Your task to perform on an android device: Open Google Chrome and open the bookmarks view Image 0: 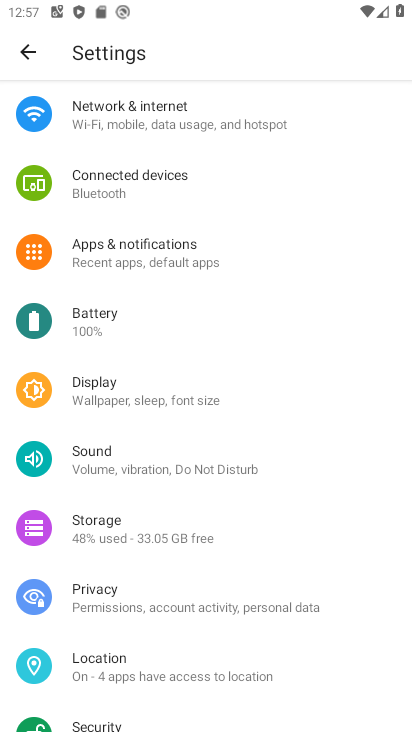
Step 0: press home button
Your task to perform on an android device: Open Google Chrome and open the bookmarks view Image 1: 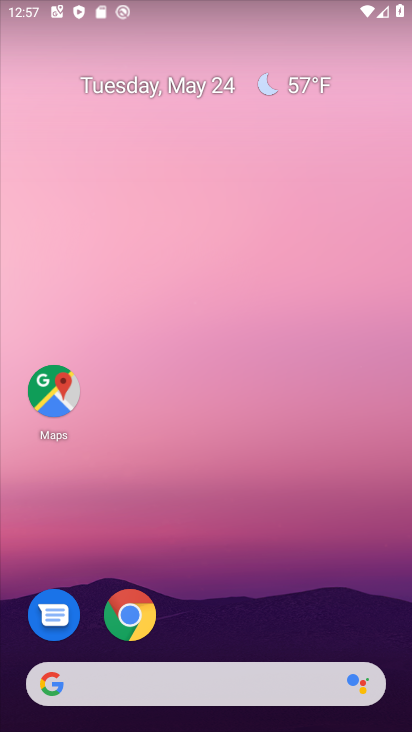
Step 1: click (132, 622)
Your task to perform on an android device: Open Google Chrome and open the bookmarks view Image 2: 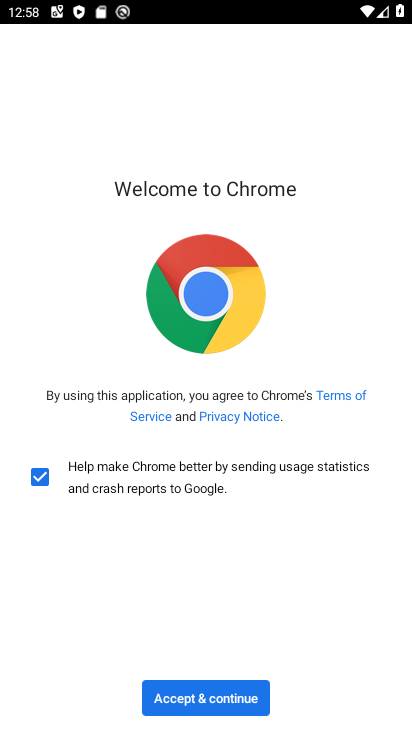
Step 2: click (195, 698)
Your task to perform on an android device: Open Google Chrome and open the bookmarks view Image 3: 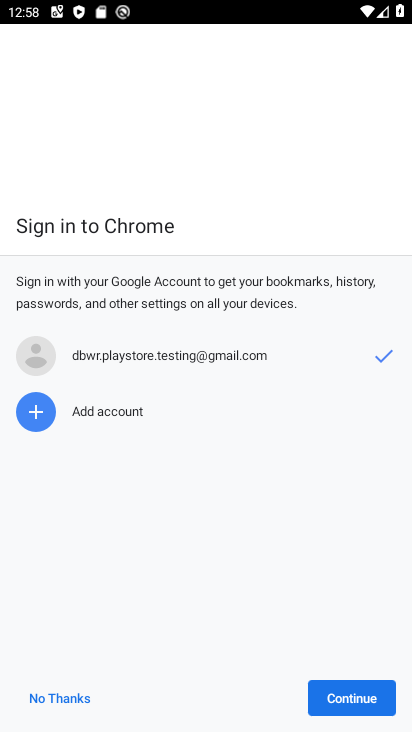
Step 3: click (336, 694)
Your task to perform on an android device: Open Google Chrome and open the bookmarks view Image 4: 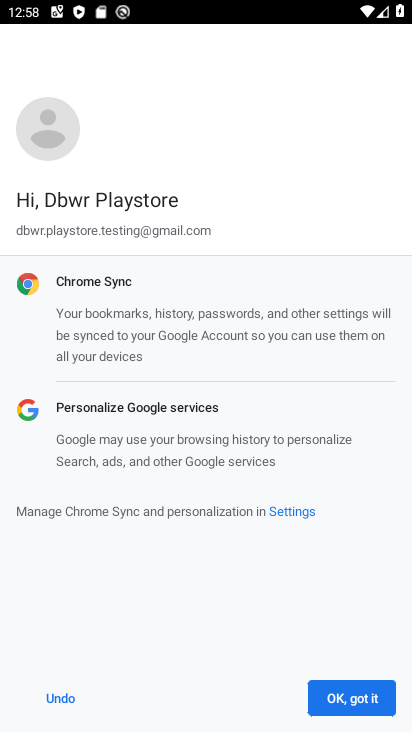
Step 4: click (336, 694)
Your task to perform on an android device: Open Google Chrome and open the bookmarks view Image 5: 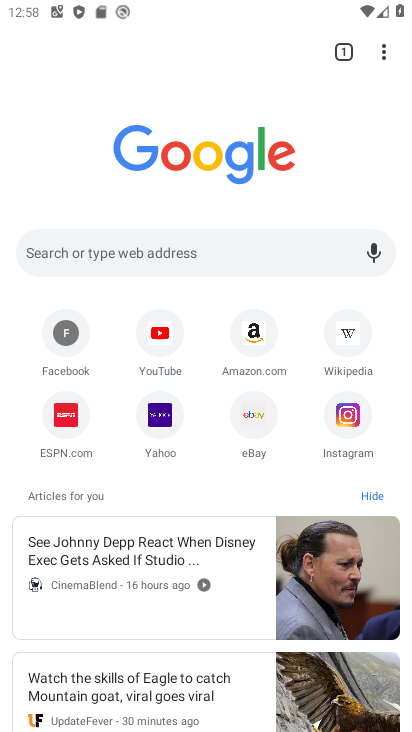
Step 5: click (384, 43)
Your task to perform on an android device: Open Google Chrome and open the bookmarks view Image 6: 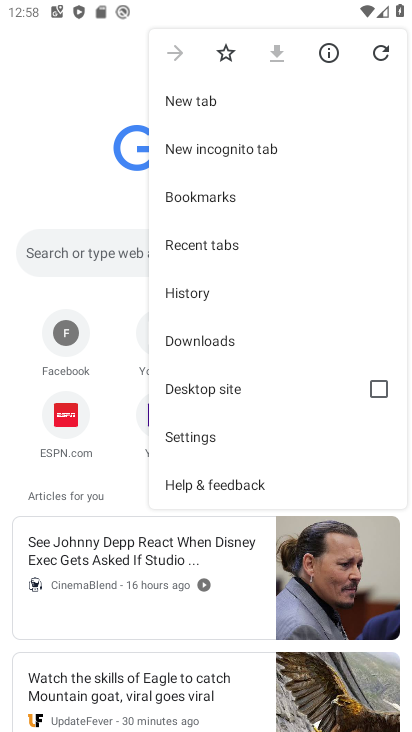
Step 6: click (185, 190)
Your task to perform on an android device: Open Google Chrome and open the bookmarks view Image 7: 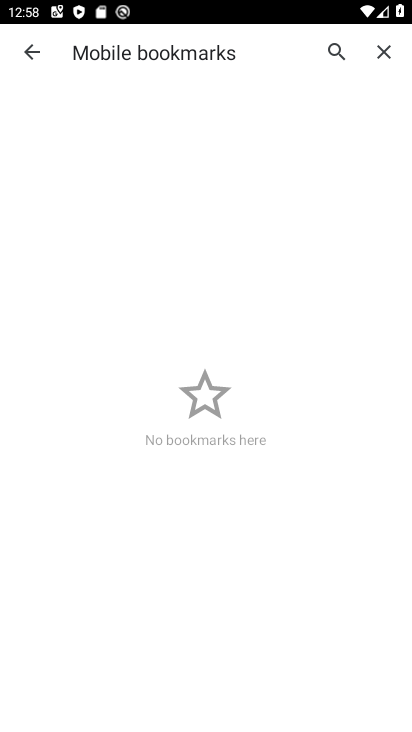
Step 7: task complete